Your task to perform on an android device: allow cookies in the chrome app Image 0: 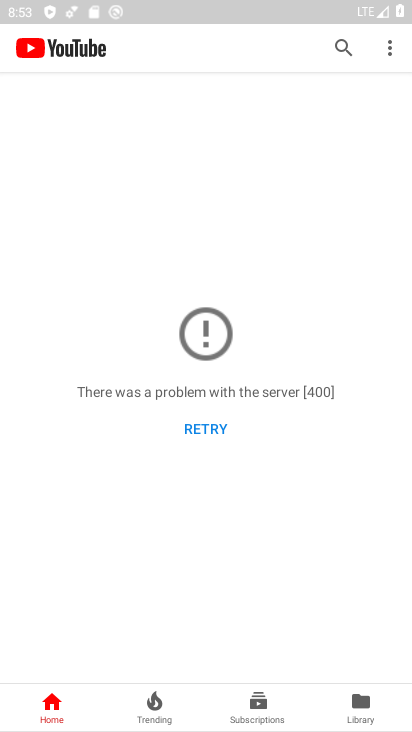
Step 0: press home button
Your task to perform on an android device: allow cookies in the chrome app Image 1: 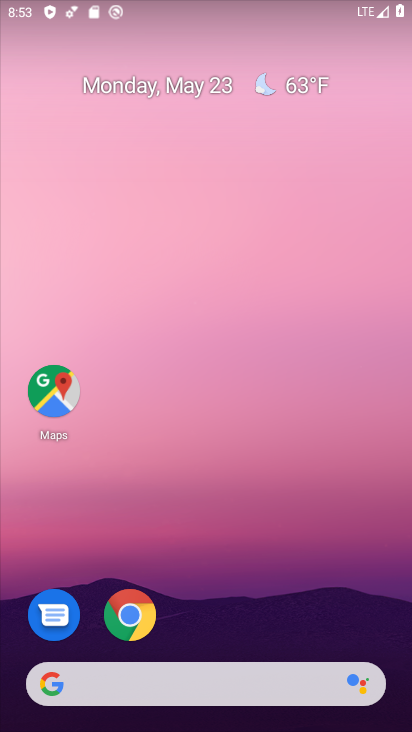
Step 1: click (123, 612)
Your task to perform on an android device: allow cookies in the chrome app Image 2: 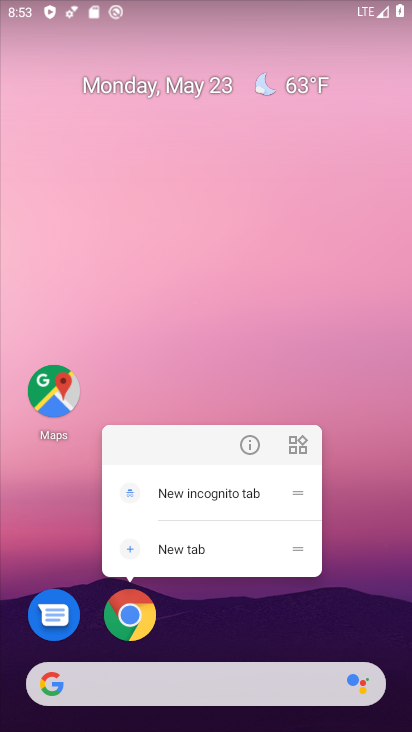
Step 2: click (123, 612)
Your task to perform on an android device: allow cookies in the chrome app Image 3: 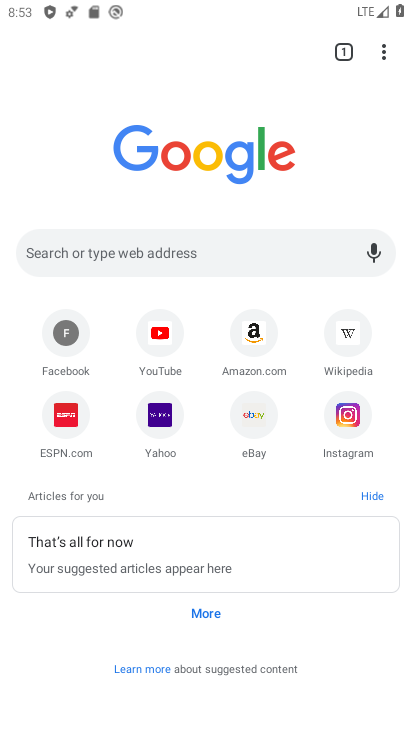
Step 3: click (376, 49)
Your task to perform on an android device: allow cookies in the chrome app Image 4: 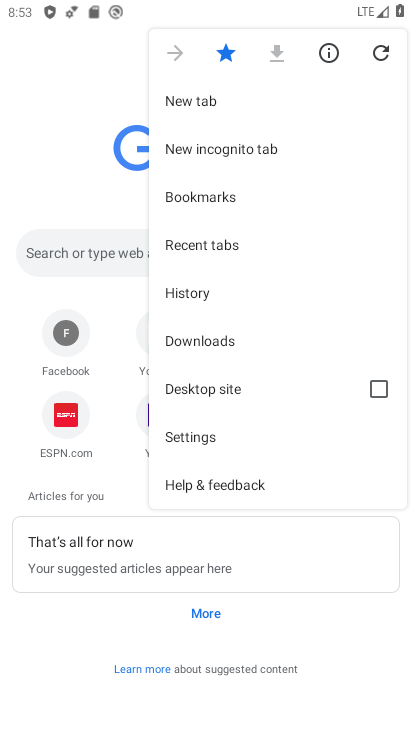
Step 4: click (214, 435)
Your task to perform on an android device: allow cookies in the chrome app Image 5: 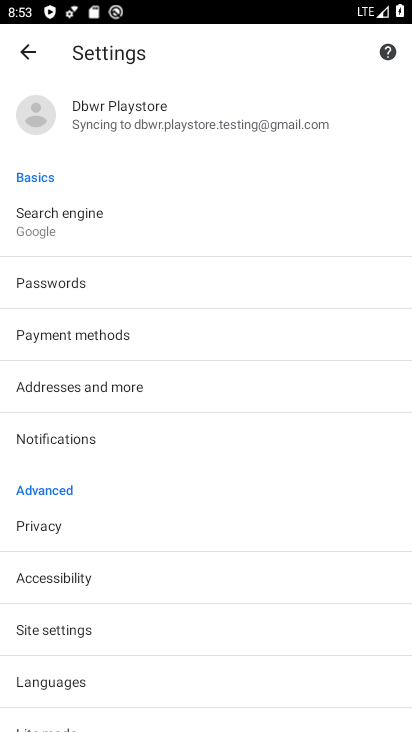
Step 5: drag from (187, 609) to (144, 288)
Your task to perform on an android device: allow cookies in the chrome app Image 6: 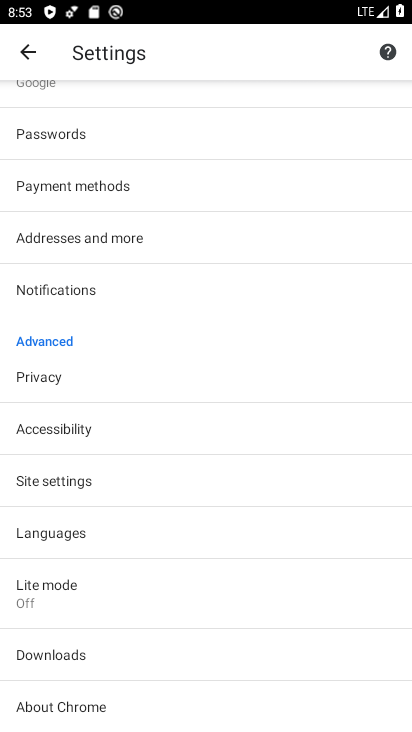
Step 6: click (97, 485)
Your task to perform on an android device: allow cookies in the chrome app Image 7: 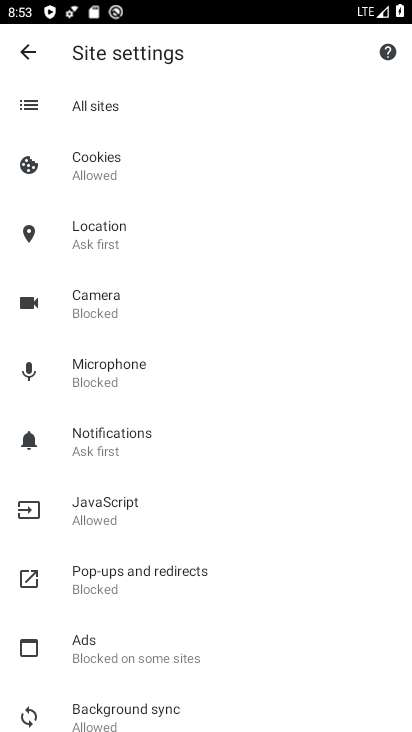
Step 7: click (89, 157)
Your task to perform on an android device: allow cookies in the chrome app Image 8: 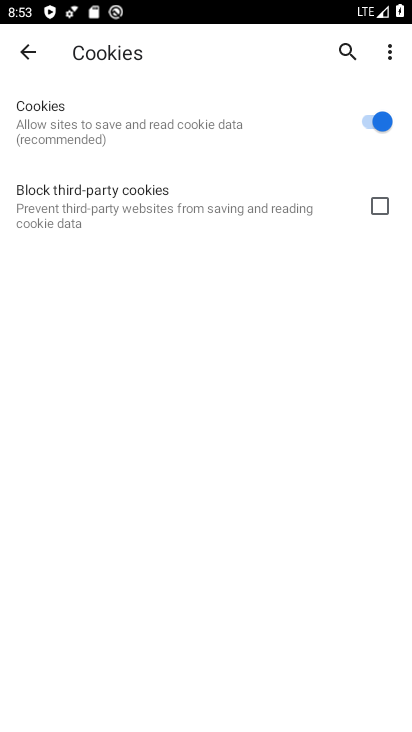
Step 8: task complete